Your task to perform on an android device: What's on my calendar tomorrow? Image 0: 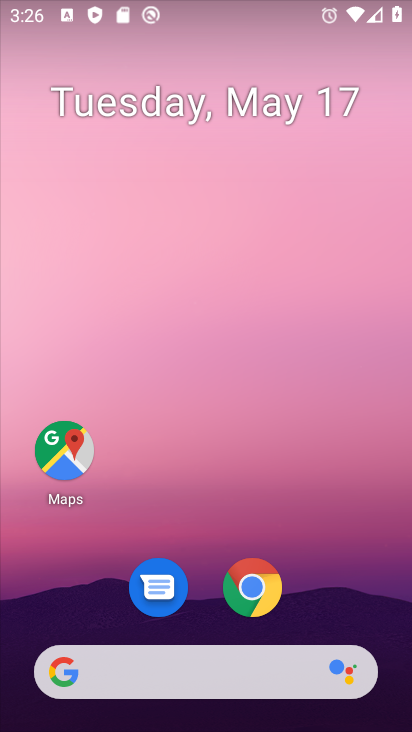
Step 0: drag from (202, 635) to (234, 204)
Your task to perform on an android device: What's on my calendar tomorrow? Image 1: 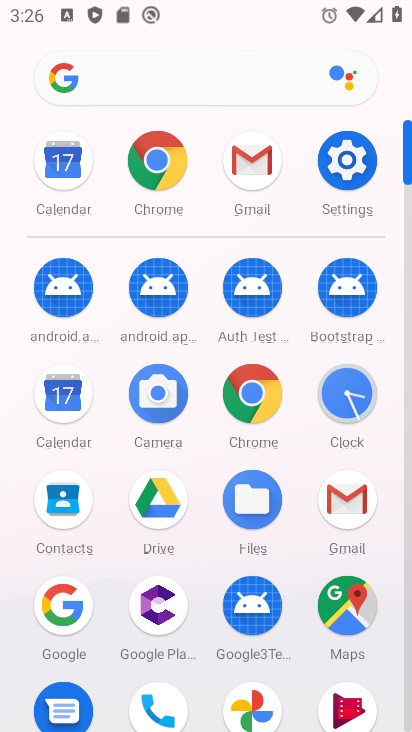
Step 1: click (63, 379)
Your task to perform on an android device: What's on my calendar tomorrow? Image 2: 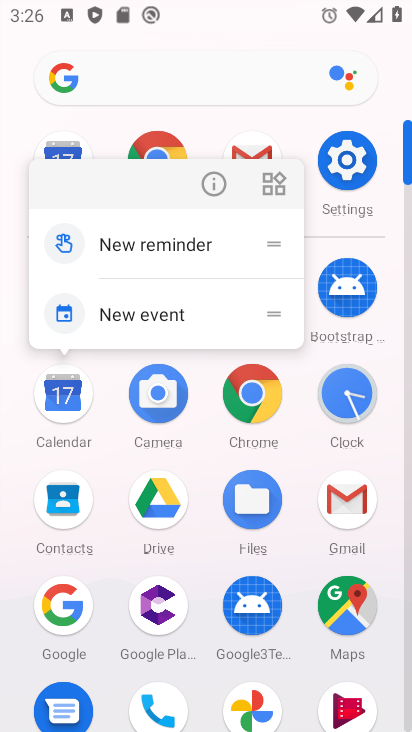
Step 2: click (220, 183)
Your task to perform on an android device: What's on my calendar tomorrow? Image 3: 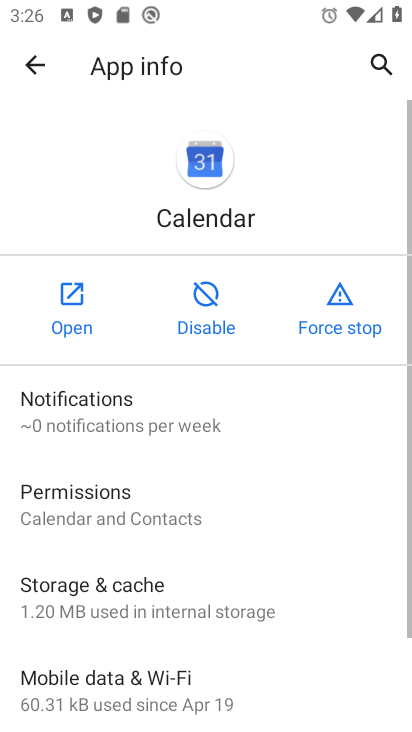
Step 3: click (72, 317)
Your task to perform on an android device: What's on my calendar tomorrow? Image 4: 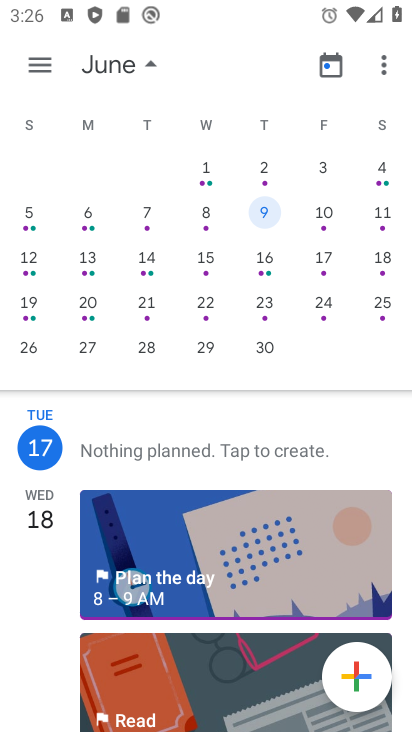
Step 4: drag from (23, 256) to (407, 262)
Your task to perform on an android device: What's on my calendar tomorrow? Image 5: 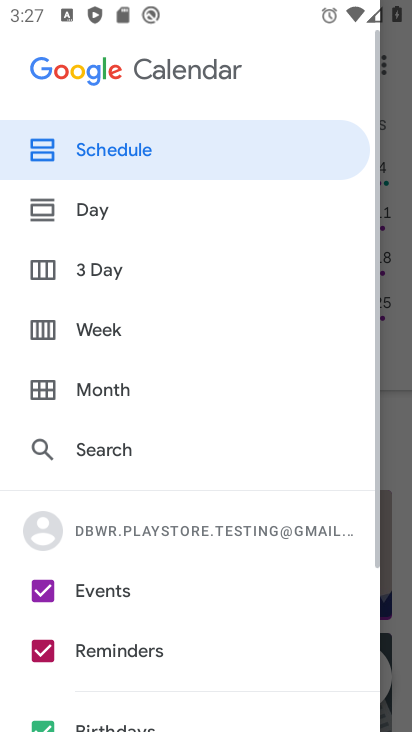
Step 5: press back button
Your task to perform on an android device: What's on my calendar tomorrow? Image 6: 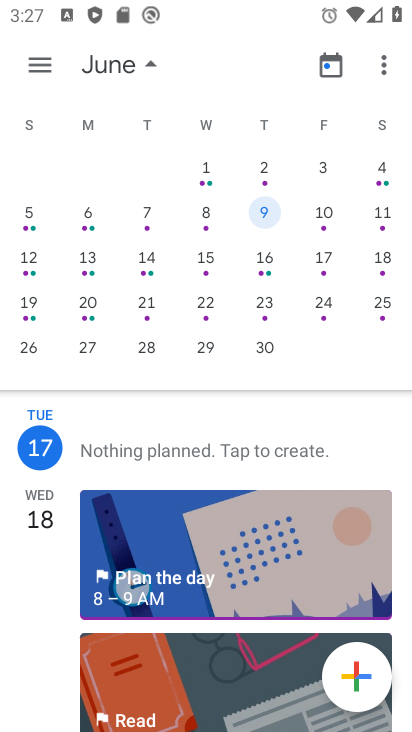
Step 6: drag from (70, 295) to (343, 236)
Your task to perform on an android device: What's on my calendar tomorrow? Image 7: 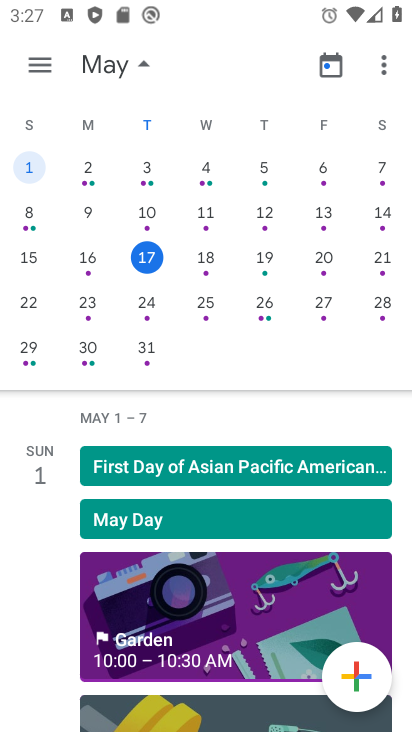
Step 7: click (202, 250)
Your task to perform on an android device: What's on my calendar tomorrow? Image 8: 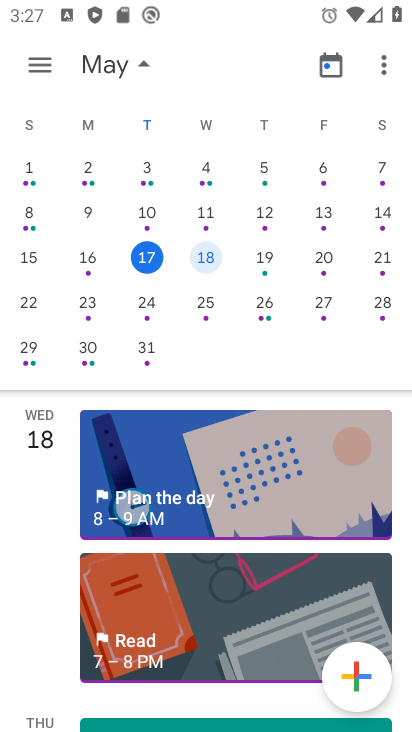
Step 8: task complete